Your task to perform on an android device: change text size in settings app Image 0: 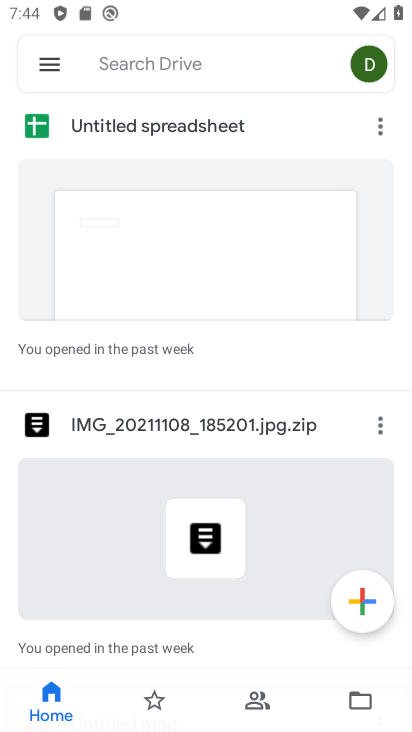
Step 0: press home button
Your task to perform on an android device: change text size in settings app Image 1: 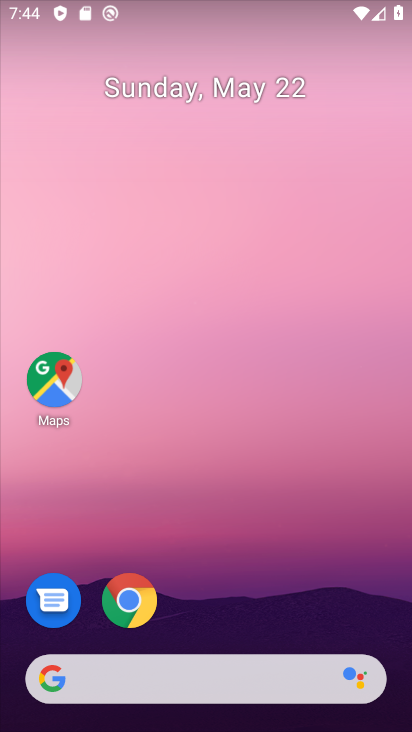
Step 1: drag from (198, 656) to (271, 228)
Your task to perform on an android device: change text size in settings app Image 2: 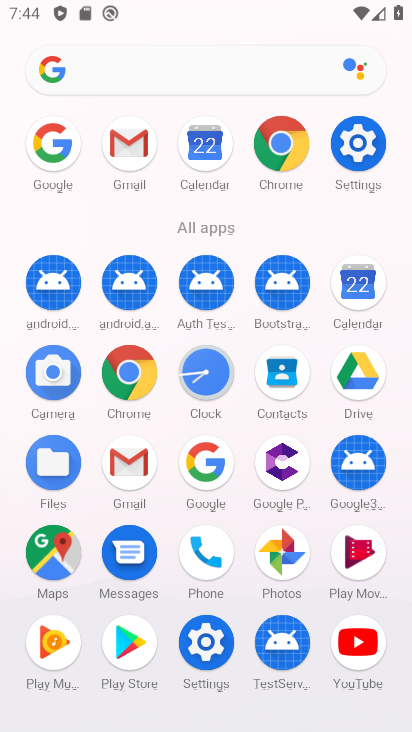
Step 2: click (358, 150)
Your task to perform on an android device: change text size in settings app Image 3: 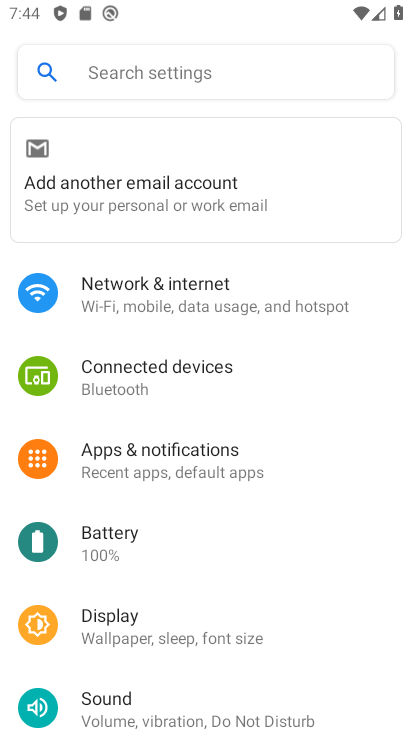
Step 3: drag from (153, 707) to (173, 316)
Your task to perform on an android device: change text size in settings app Image 4: 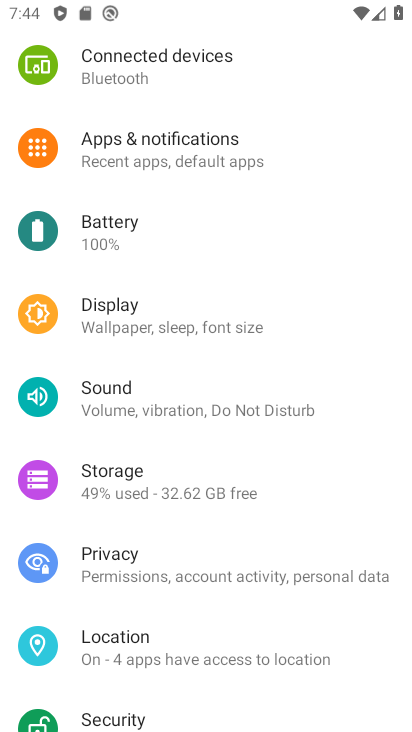
Step 4: drag from (169, 631) to (199, 283)
Your task to perform on an android device: change text size in settings app Image 5: 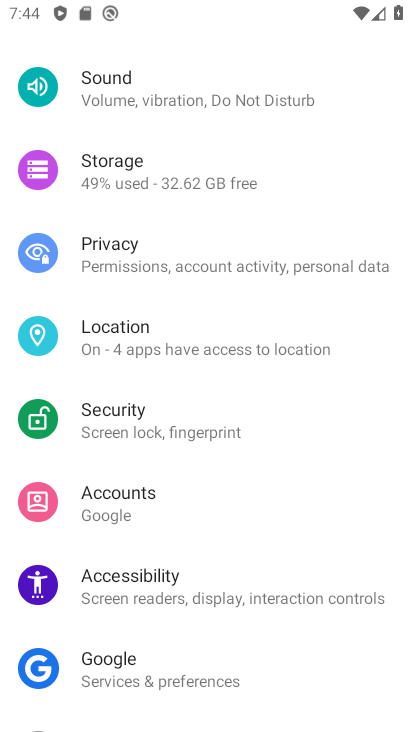
Step 5: click (202, 590)
Your task to perform on an android device: change text size in settings app Image 6: 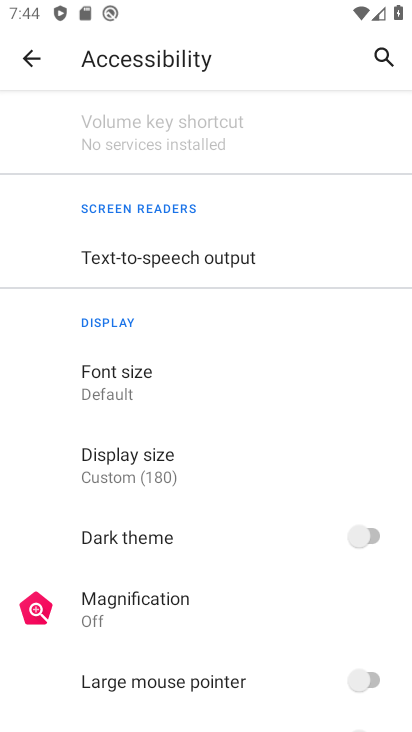
Step 6: click (127, 400)
Your task to perform on an android device: change text size in settings app Image 7: 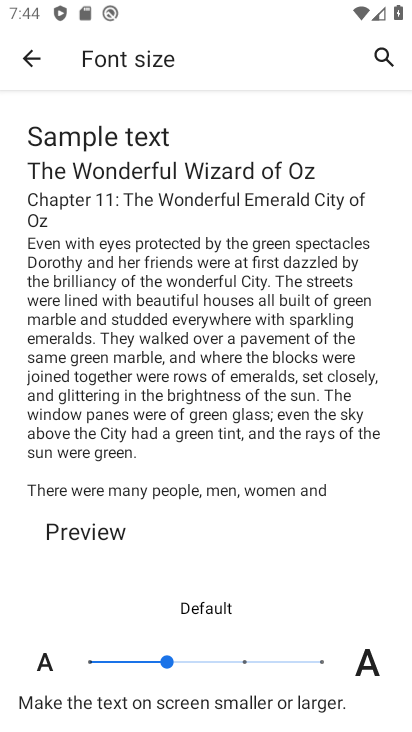
Step 7: click (241, 661)
Your task to perform on an android device: change text size in settings app Image 8: 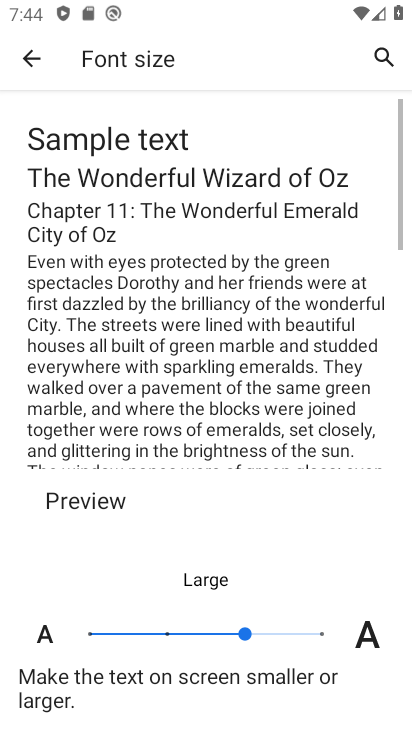
Step 8: task complete